Your task to perform on an android device: change text size in settings app Image 0: 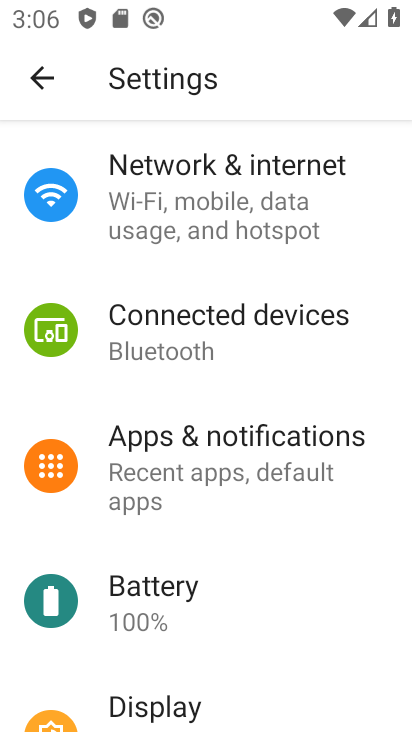
Step 0: drag from (223, 523) to (296, 366)
Your task to perform on an android device: change text size in settings app Image 1: 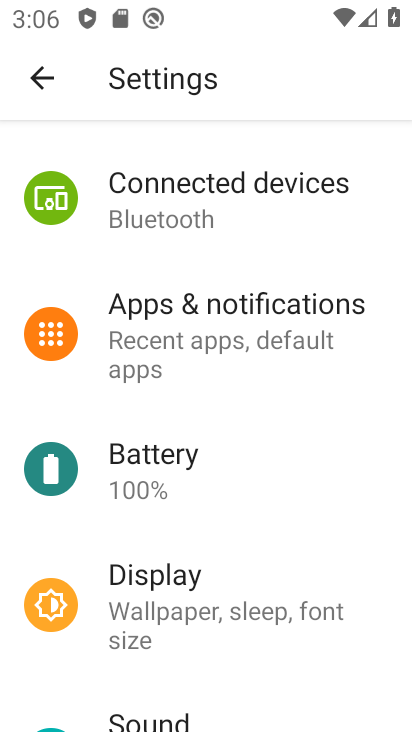
Step 1: drag from (203, 507) to (256, 402)
Your task to perform on an android device: change text size in settings app Image 2: 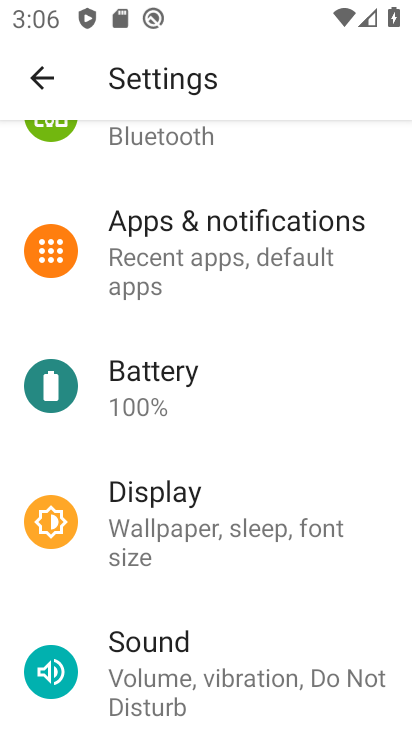
Step 2: drag from (189, 446) to (247, 349)
Your task to perform on an android device: change text size in settings app Image 3: 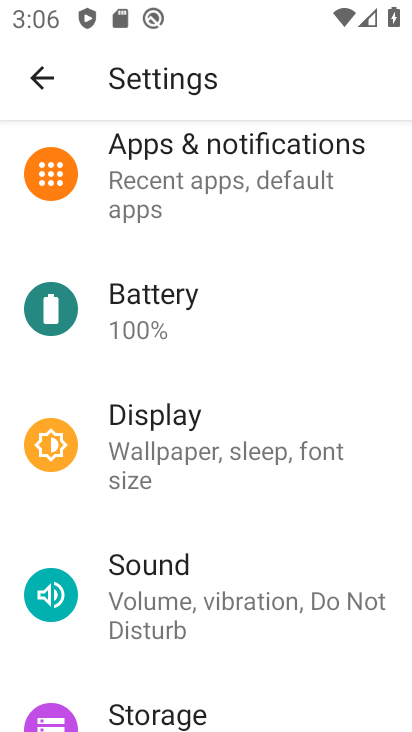
Step 3: drag from (215, 368) to (235, 292)
Your task to perform on an android device: change text size in settings app Image 4: 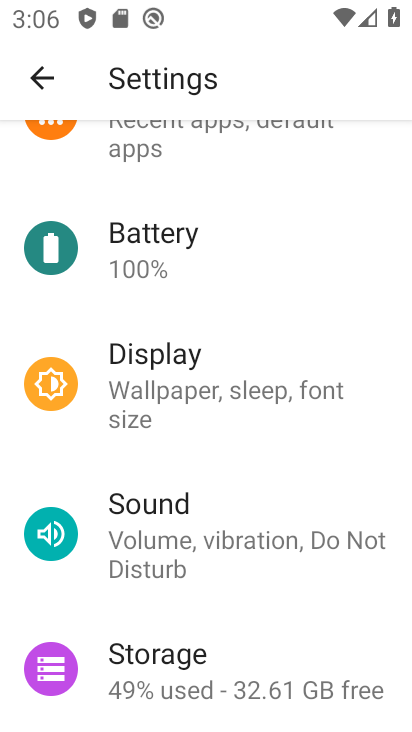
Step 4: drag from (182, 424) to (221, 327)
Your task to perform on an android device: change text size in settings app Image 5: 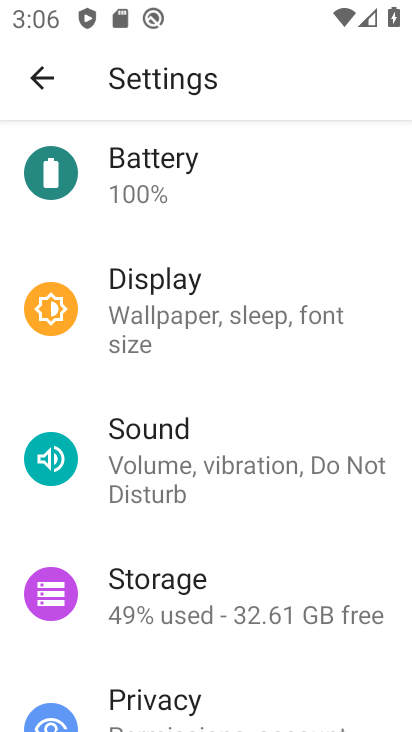
Step 5: drag from (190, 395) to (251, 287)
Your task to perform on an android device: change text size in settings app Image 6: 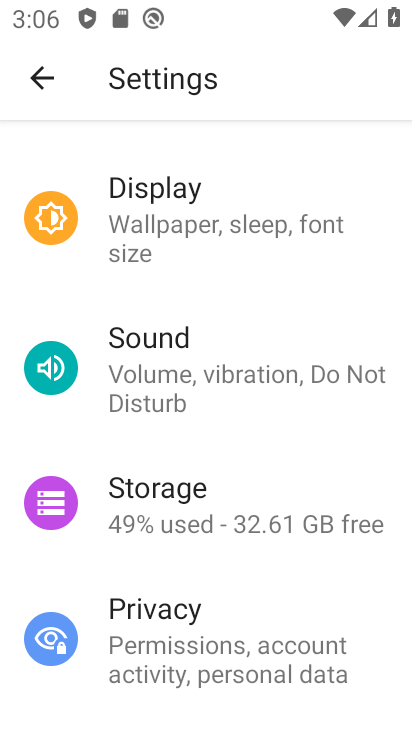
Step 6: drag from (207, 435) to (245, 346)
Your task to perform on an android device: change text size in settings app Image 7: 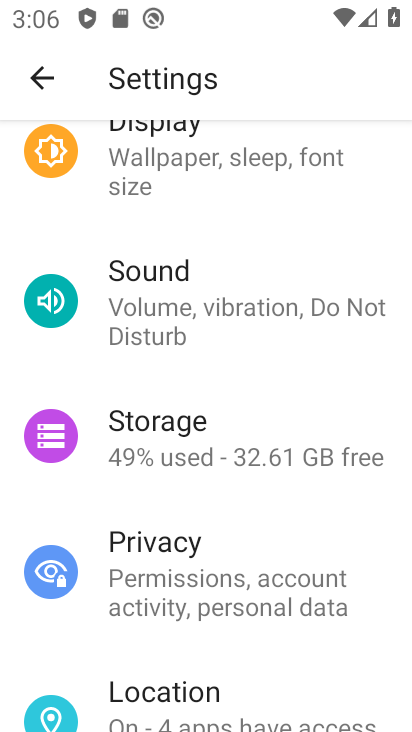
Step 7: drag from (212, 386) to (242, 287)
Your task to perform on an android device: change text size in settings app Image 8: 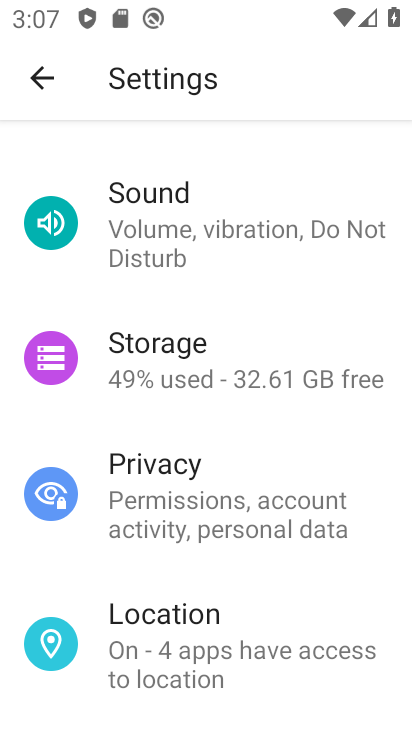
Step 8: drag from (221, 432) to (246, 332)
Your task to perform on an android device: change text size in settings app Image 9: 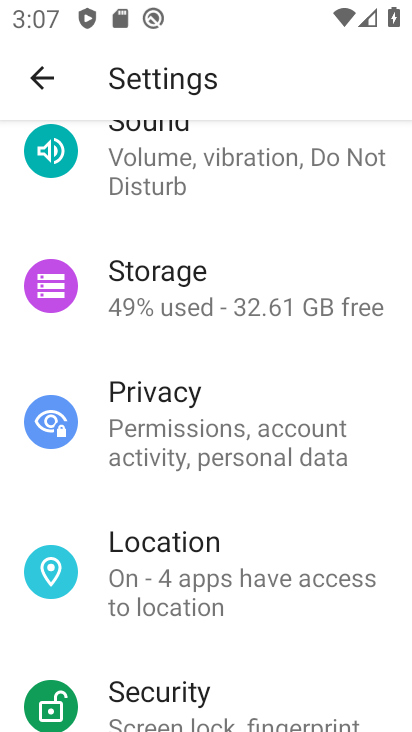
Step 9: drag from (198, 366) to (257, 243)
Your task to perform on an android device: change text size in settings app Image 10: 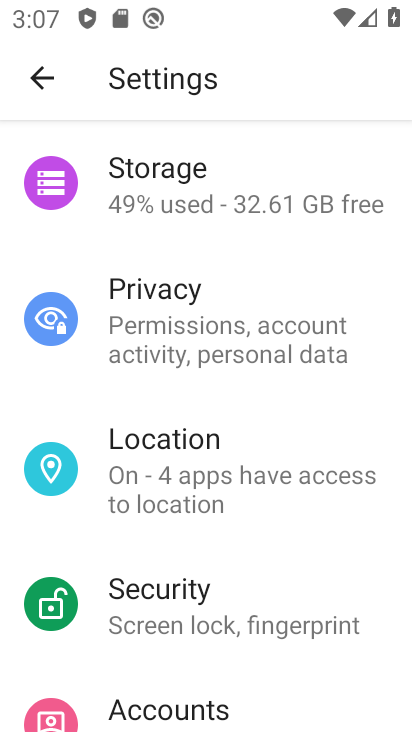
Step 10: drag from (168, 403) to (224, 316)
Your task to perform on an android device: change text size in settings app Image 11: 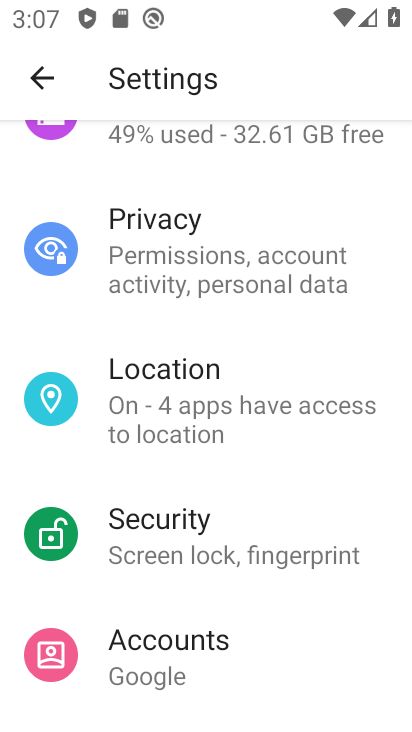
Step 11: drag from (144, 475) to (238, 321)
Your task to perform on an android device: change text size in settings app Image 12: 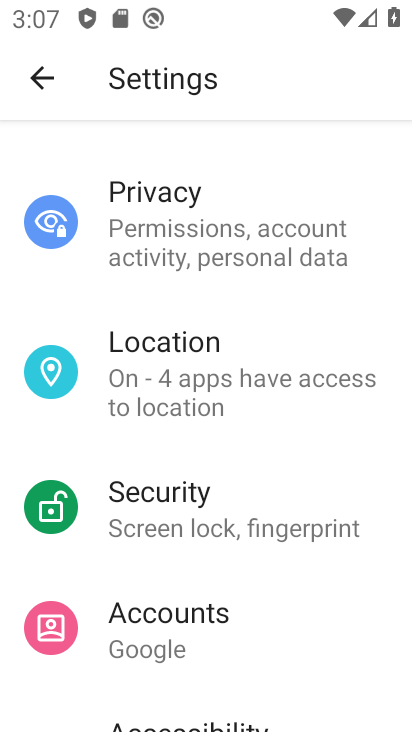
Step 12: drag from (146, 563) to (213, 445)
Your task to perform on an android device: change text size in settings app Image 13: 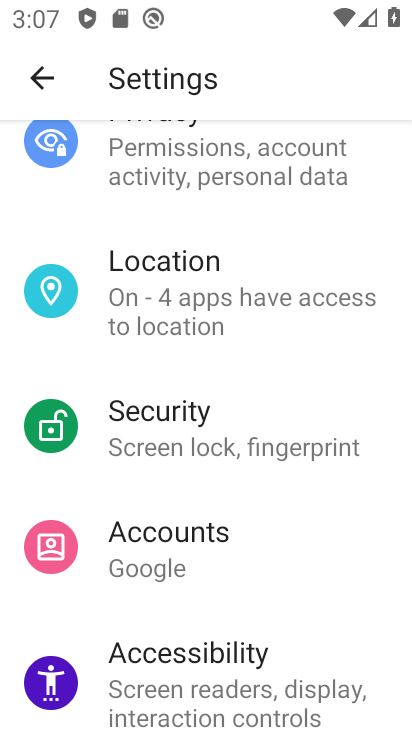
Step 13: drag from (137, 613) to (260, 459)
Your task to perform on an android device: change text size in settings app Image 14: 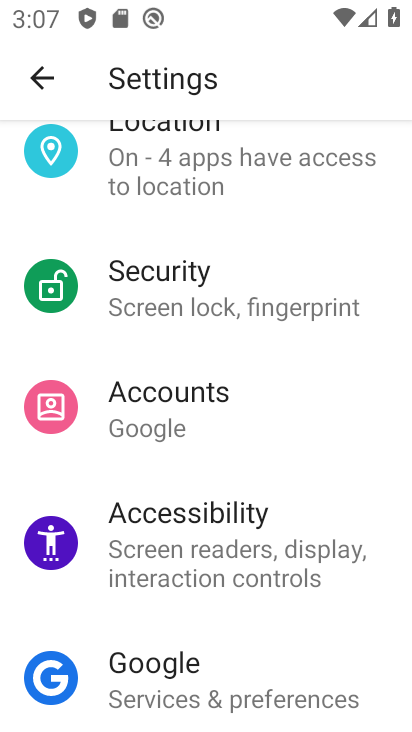
Step 14: click (216, 511)
Your task to perform on an android device: change text size in settings app Image 15: 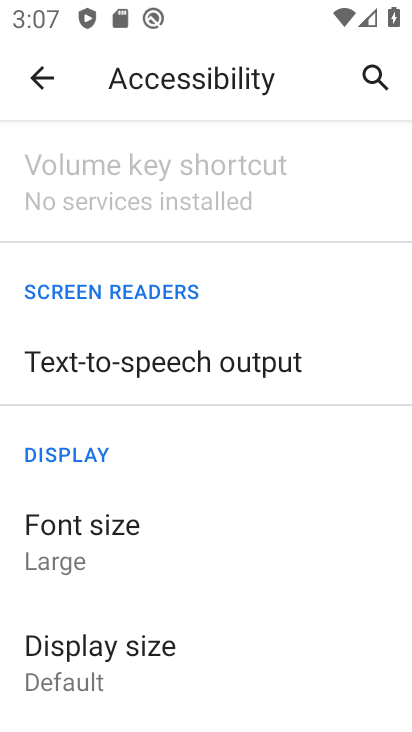
Step 15: click (88, 516)
Your task to perform on an android device: change text size in settings app Image 16: 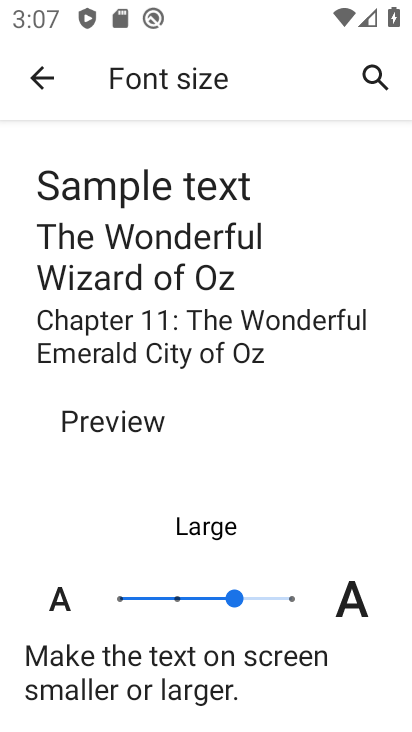
Step 16: click (173, 600)
Your task to perform on an android device: change text size in settings app Image 17: 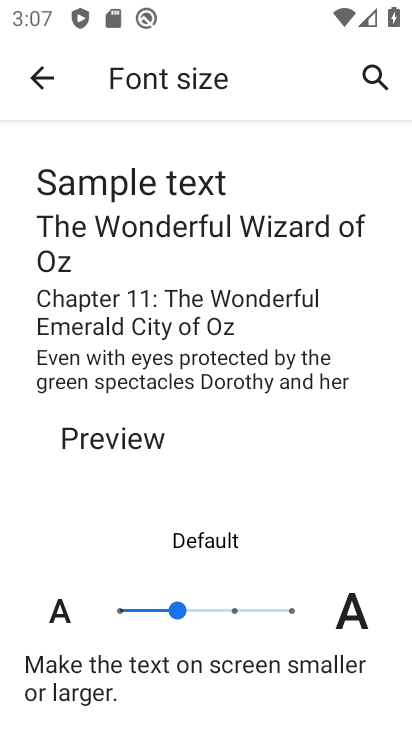
Step 17: task complete